Your task to perform on an android device: Open Google Maps and go to "Timeline" Image 0: 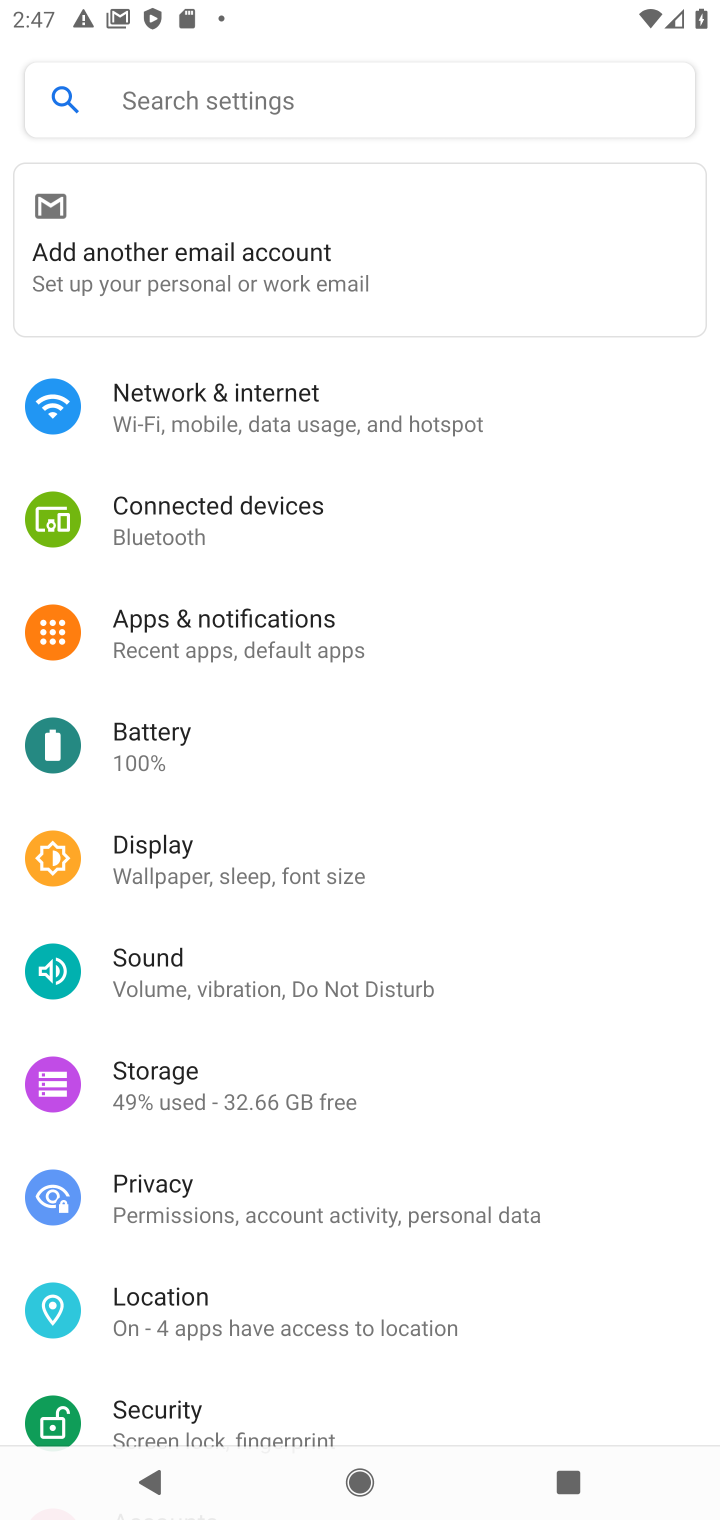
Step 0: press home button
Your task to perform on an android device: Open Google Maps and go to "Timeline" Image 1: 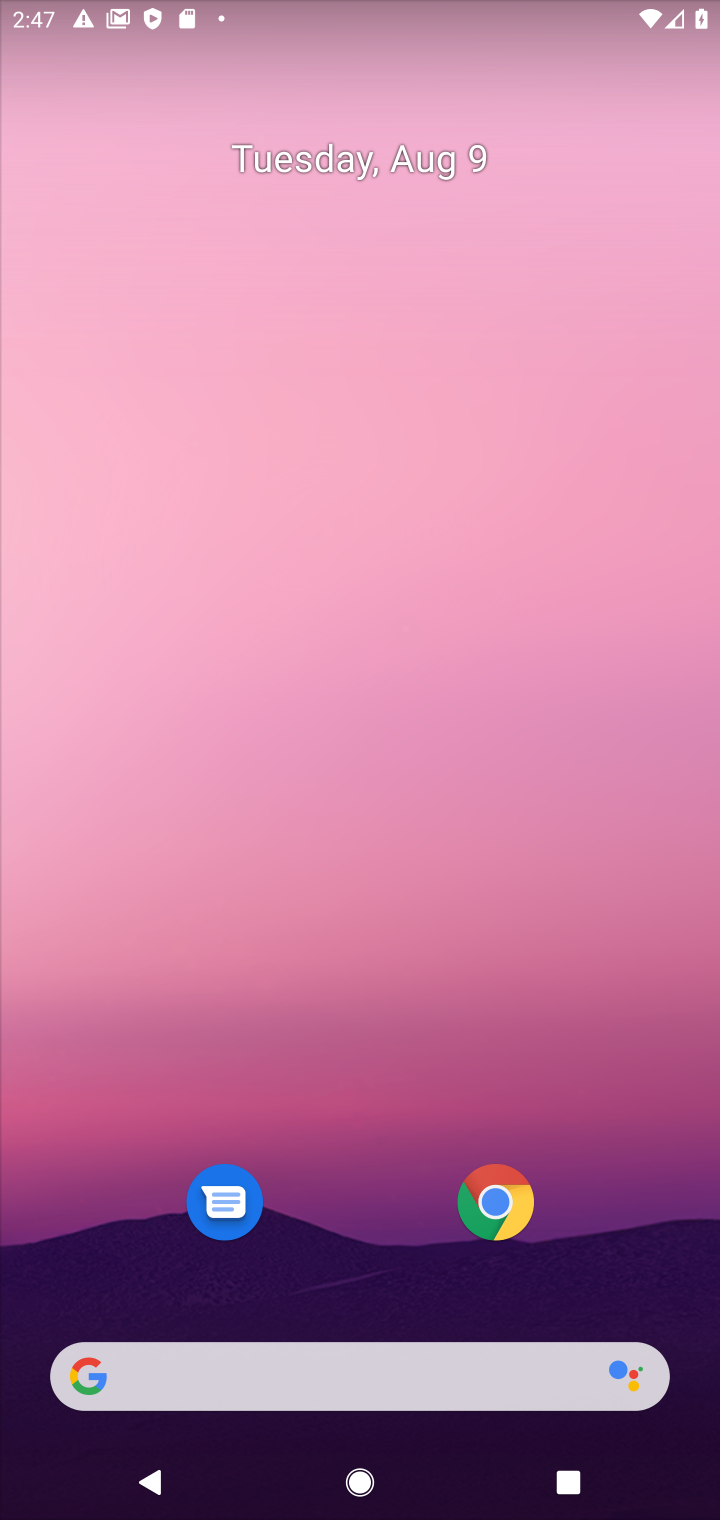
Step 1: drag from (390, 846) to (399, 205)
Your task to perform on an android device: Open Google Maps and go to "Timeline" Image 2: 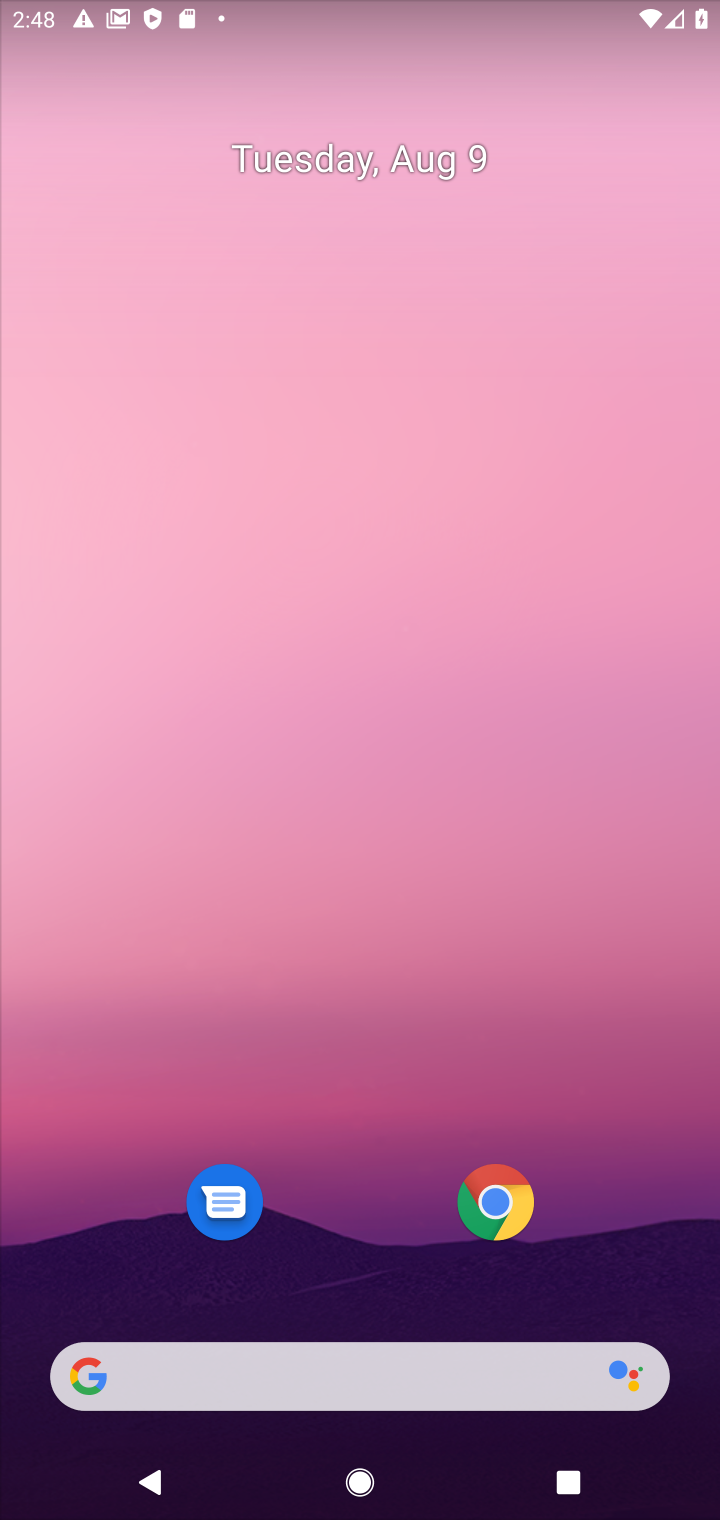
Step 2: drag from (282, 798) to (282, 454)
Your task to perform on an android device: Open Google Maps and go to "Timeline" Image 3: 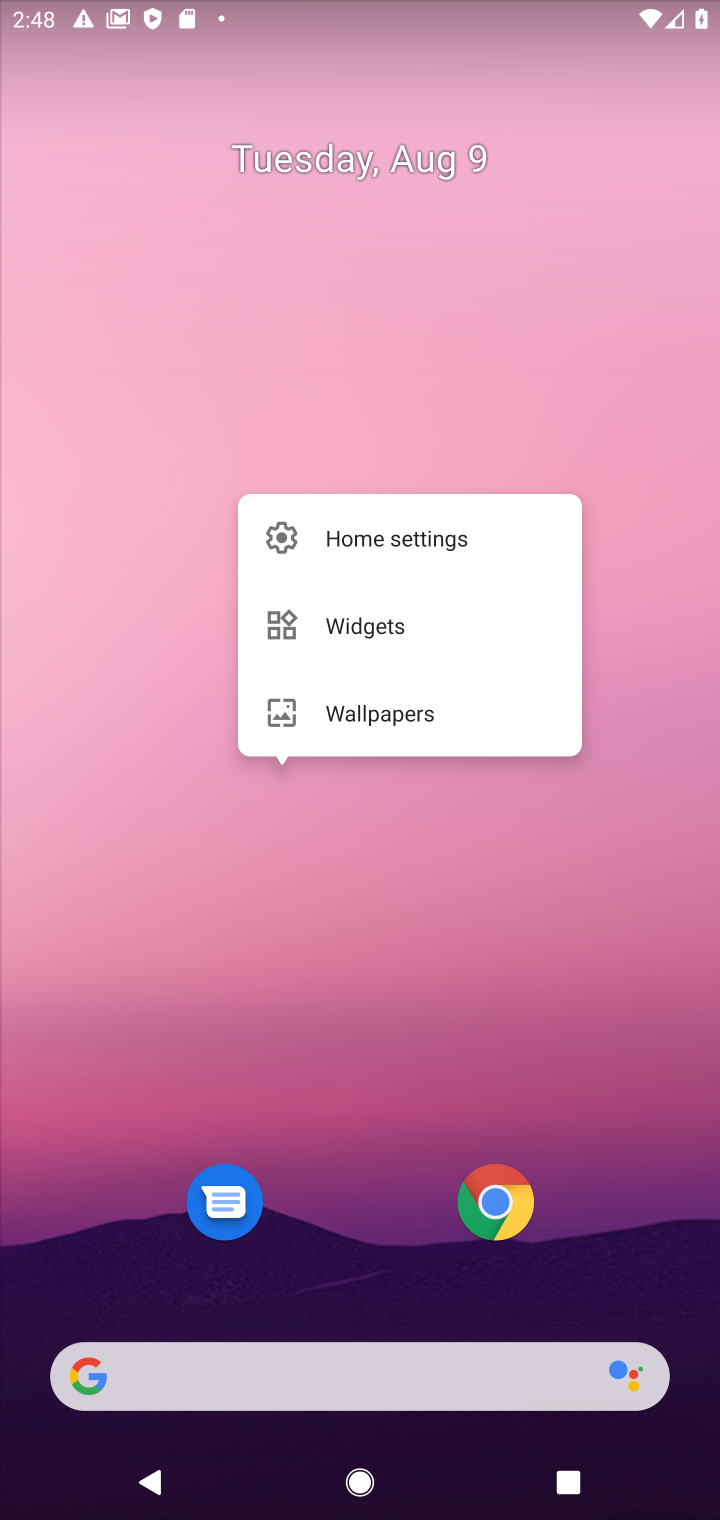
Step 3: drag from (342, 1149) to (343, 215)
Your task to perform on an android device: Open Google Maps and go to "Timeline" Image 4: 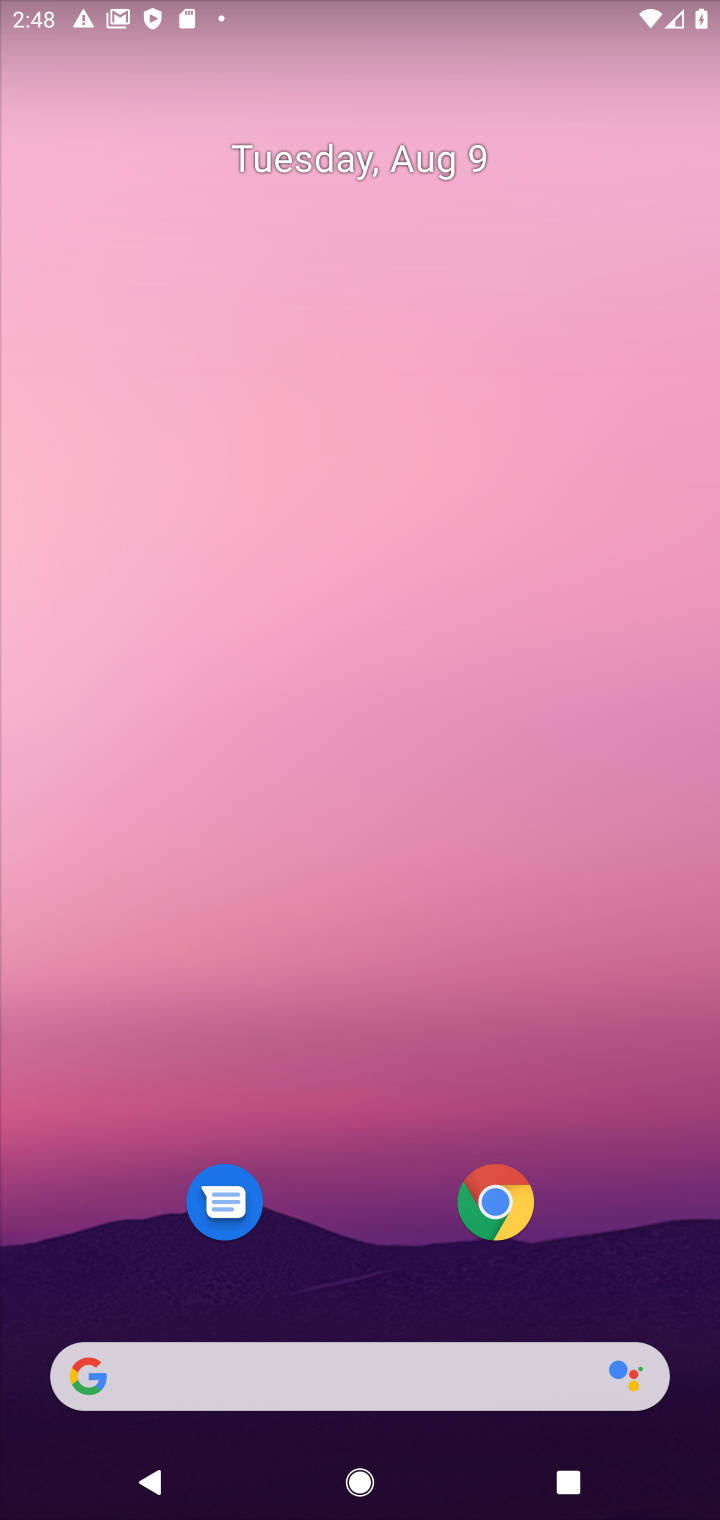
Step 4: drag from (346, 1160) to (348, 169)
Your task to perform on an android device: Open Google Maps and go to "Timeline" Image 5: 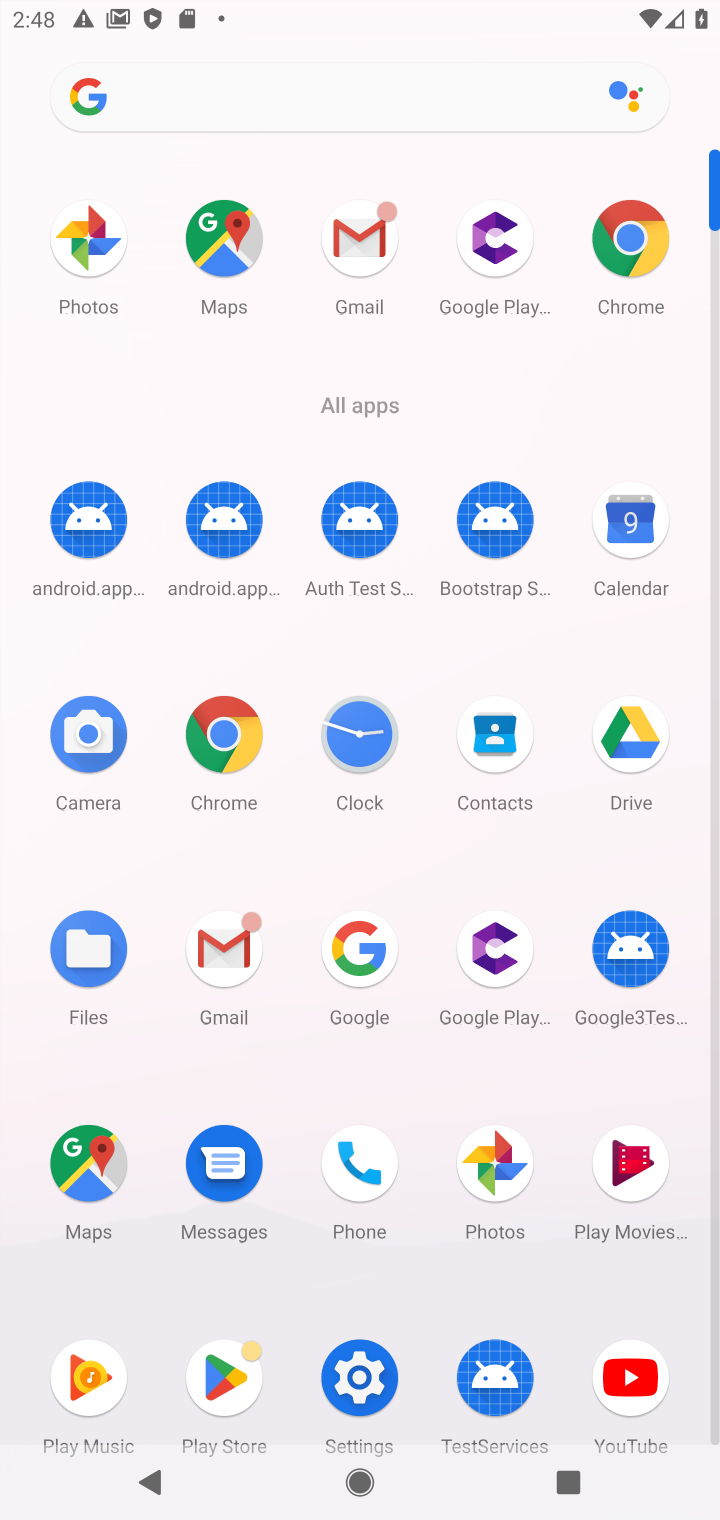
Step 5: click (81, 1180)
Your task to perform on an android device: Open Google Maps and go to "Timeline" Image 6: 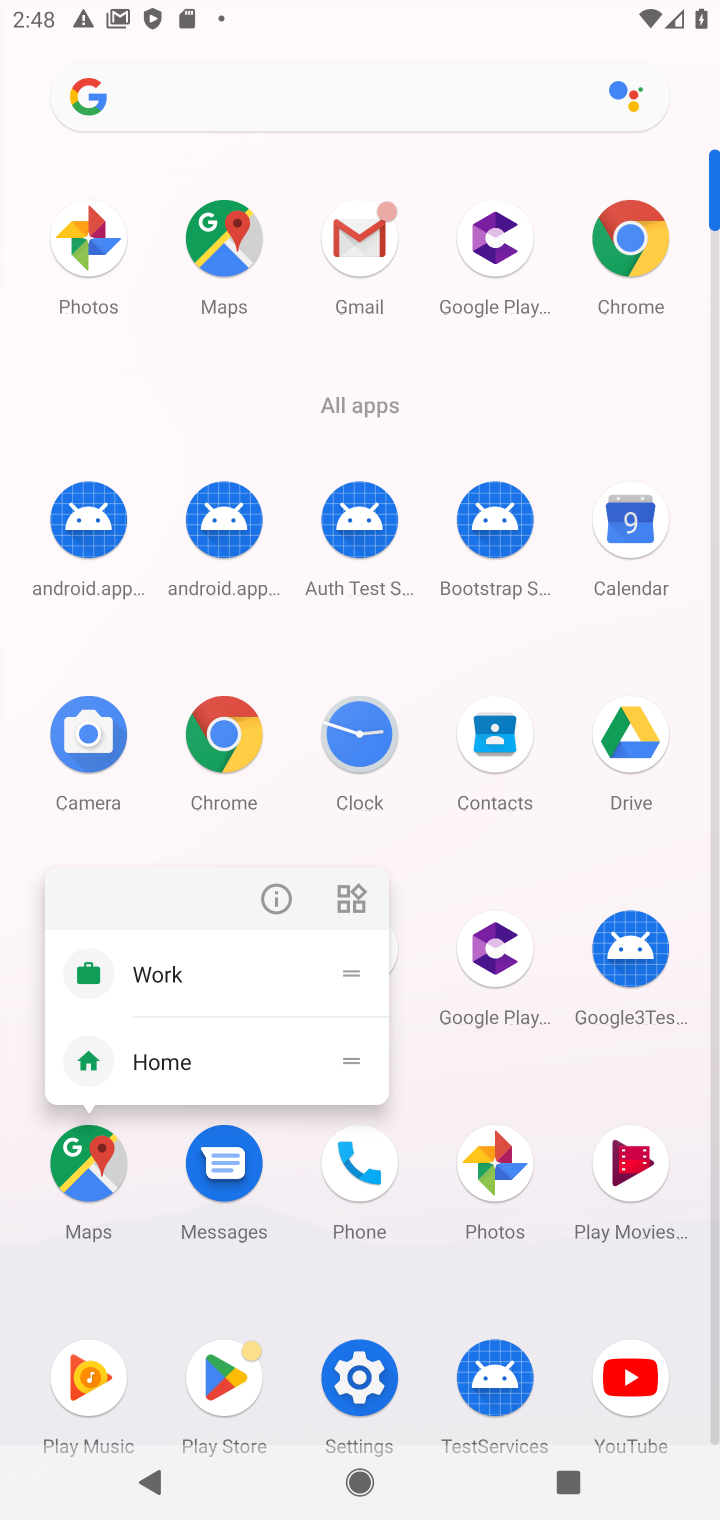
Step 6: click (81, 1166)
Your task to perform on an android device: Open Google Maps and go to "Timeline" Image 7: 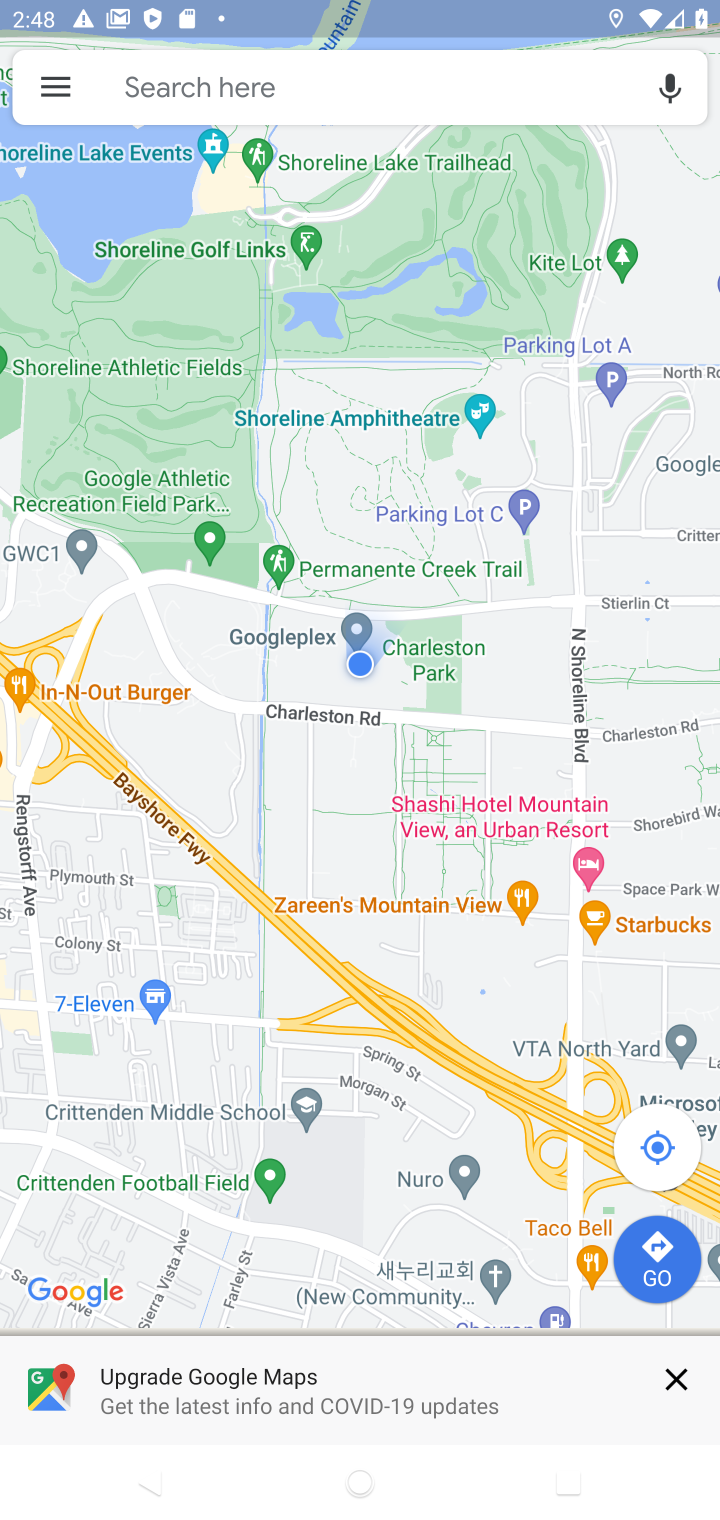
Step 7: click (58, 85)
Your task to perform on an android device: Open Google Maps and go to "Timeline" Image 8: 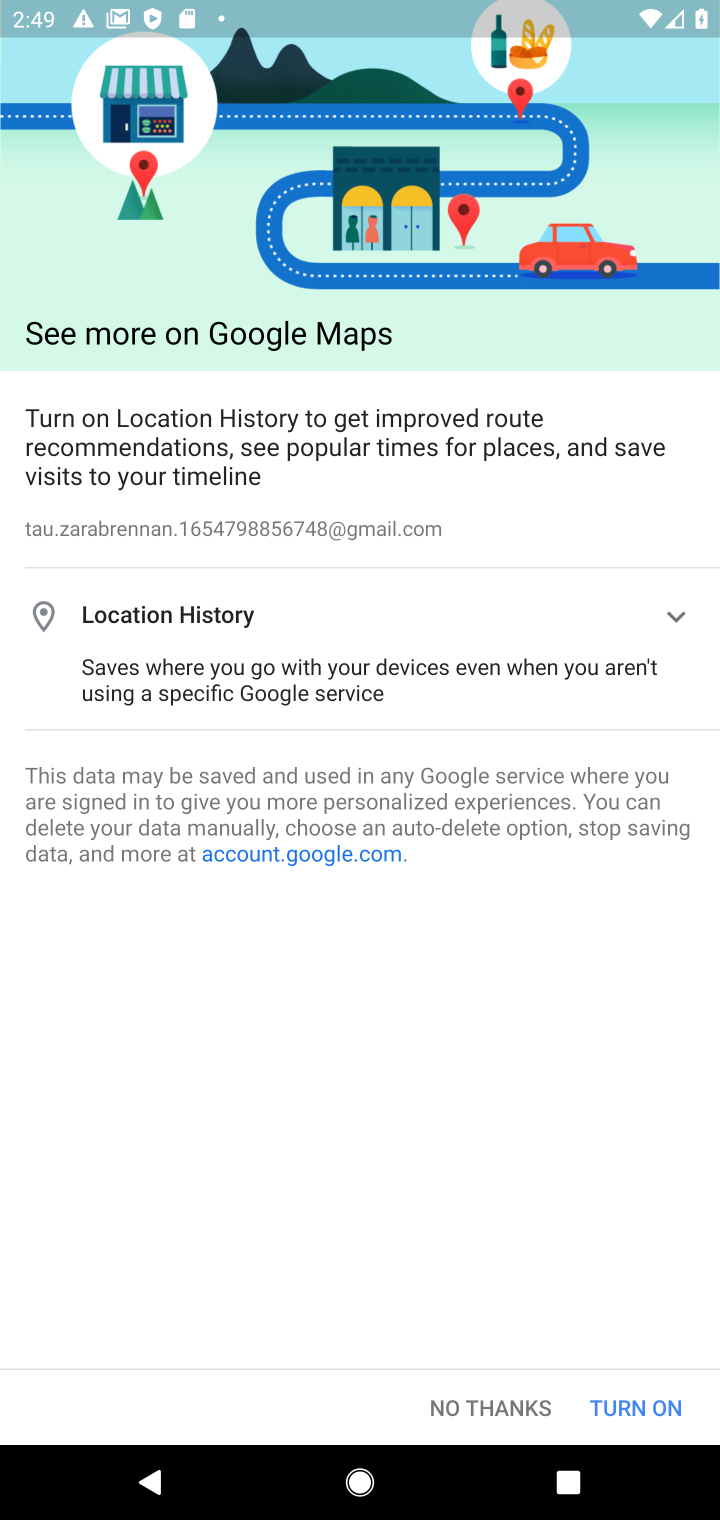
Step 8: click (524, 1417)
Your task to perform on an android device: Open Google Maps and go to "Timeline" Image 9: 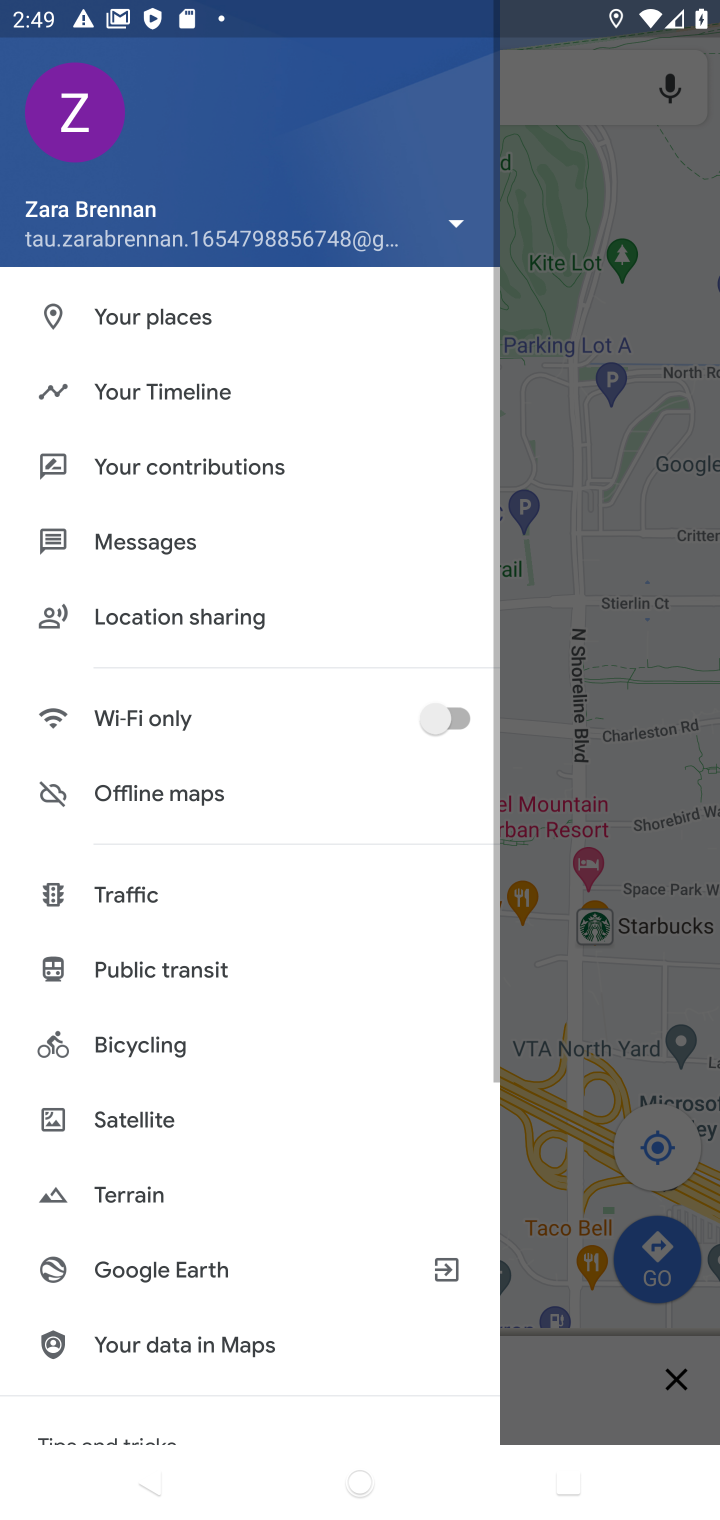
Step 9: click (175, 394)
Your task to perform on an android device: Open Google Maps and go to "Timeline" Image 10: 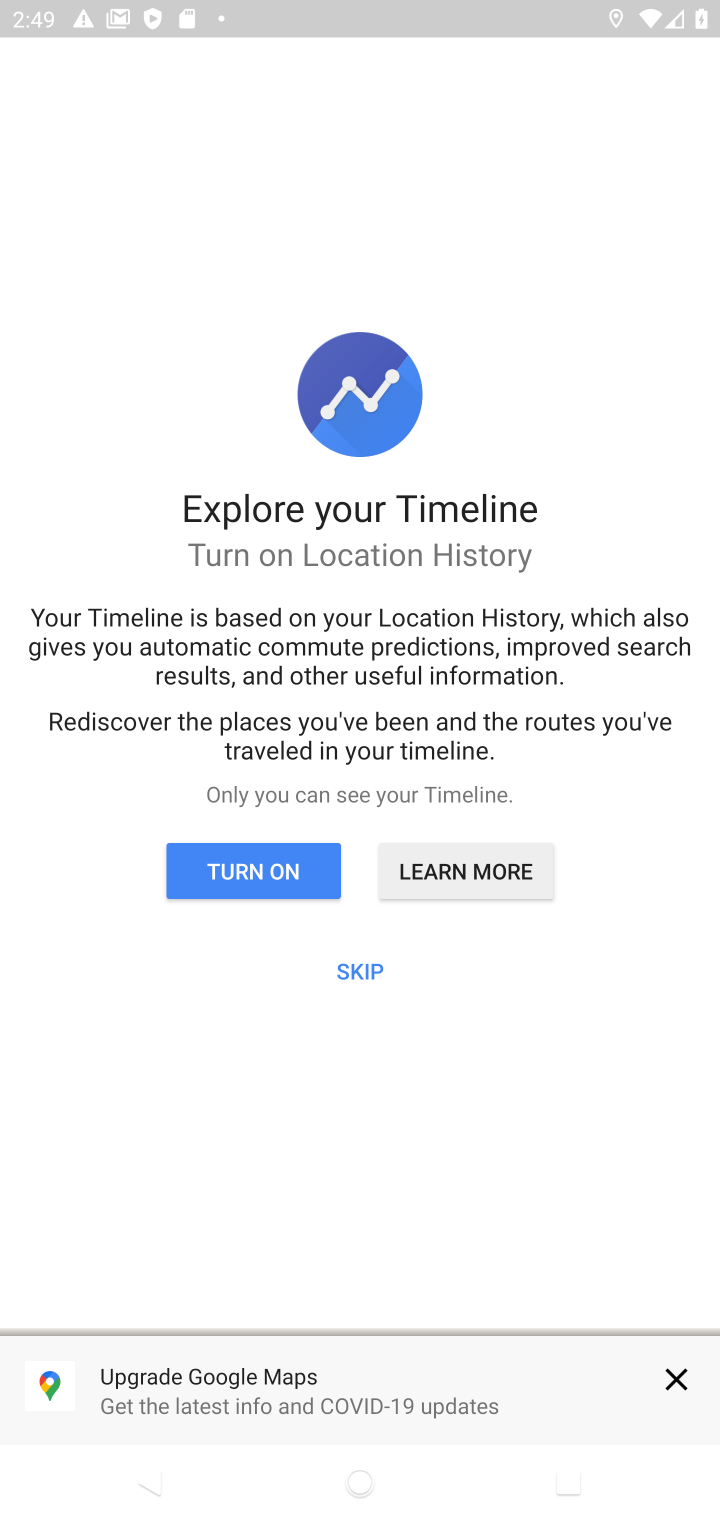
Step 10: click (341, 966)
Your task to perform on an android device: Open Google Maps and go to "Timeline" Image 11: 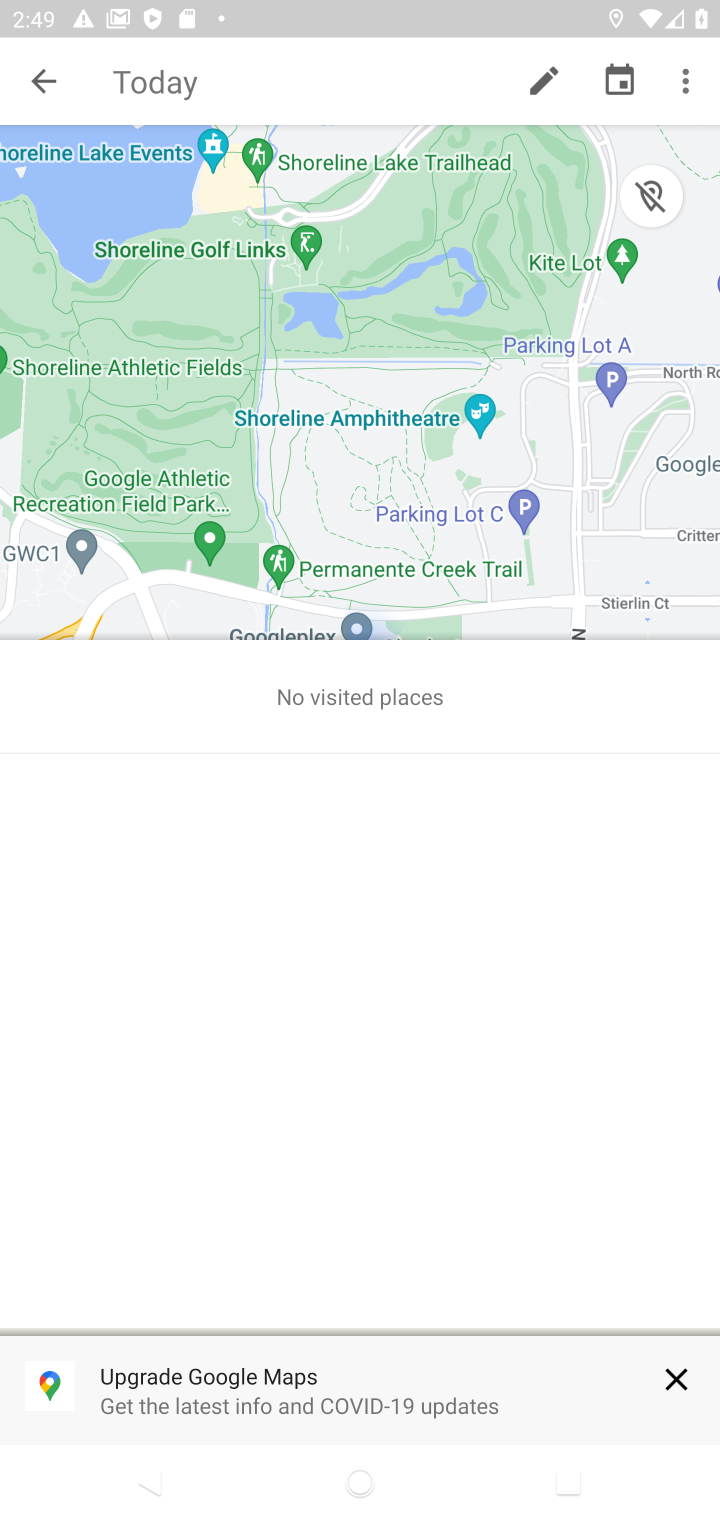
Step 11: task complete